Your task to perform on an android device: Open the calendar app, open the side menu, and click the "Day" option Image 0: 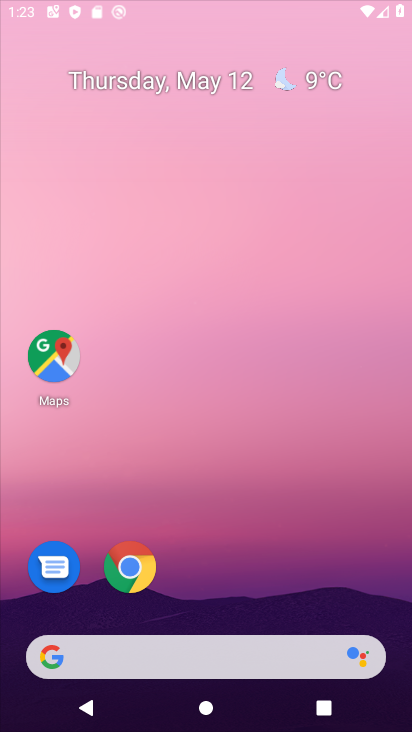
Step 0: drag from (228, 494) to (234, 1)
Your task to perform on an android device: Open the calendar app, open the side menu, and click the "Day" option Image 1: 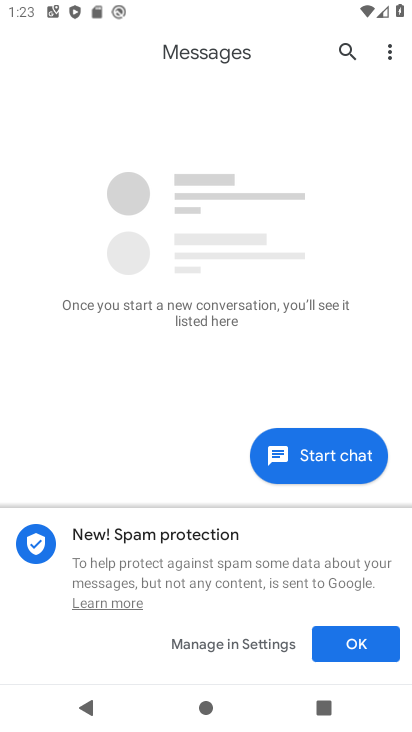
Step 1: press home button
Your task to perform on an android device: Open the calendar app, open the side menu, and click the "Day" option Image 2: 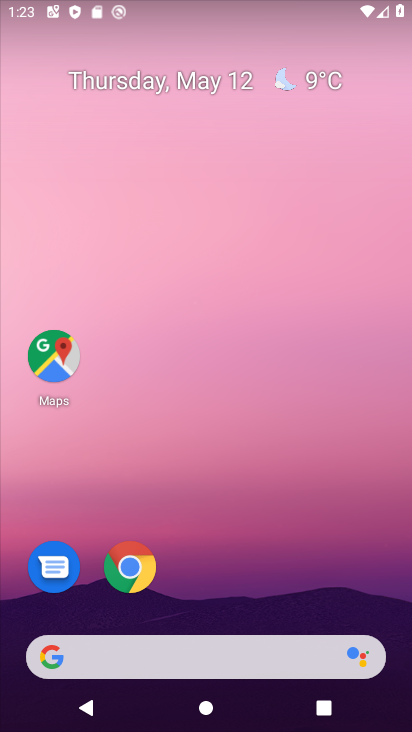
Step 2: drag from (241, 612) to (236, 92)
Your task to perform on an android device: Open the calendar app, open the side menu, and click the "Day" option Image 3: 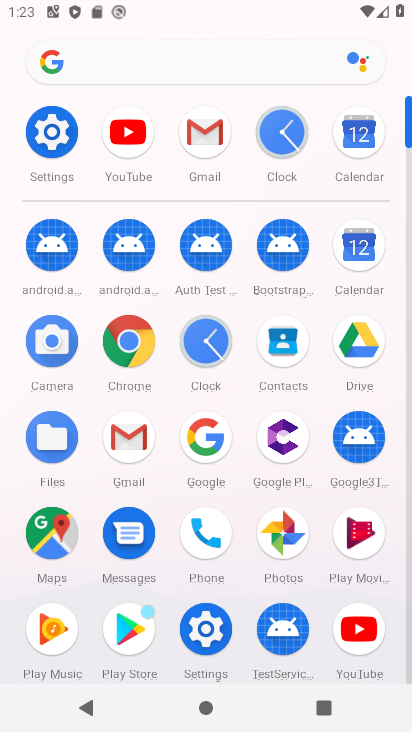
Step 3: click (358, 240)
Your task to perform on an android device: Open the calendar app, open the side menu, and click the "Day" option Image 4: 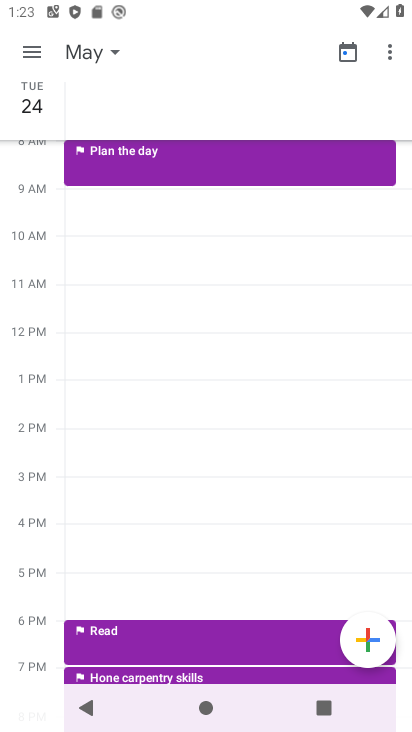
Step 4: click (32, 51)
Your task to perform on an android device: Open the calendar app, open the side menu, and click the "Day" option Image 5: 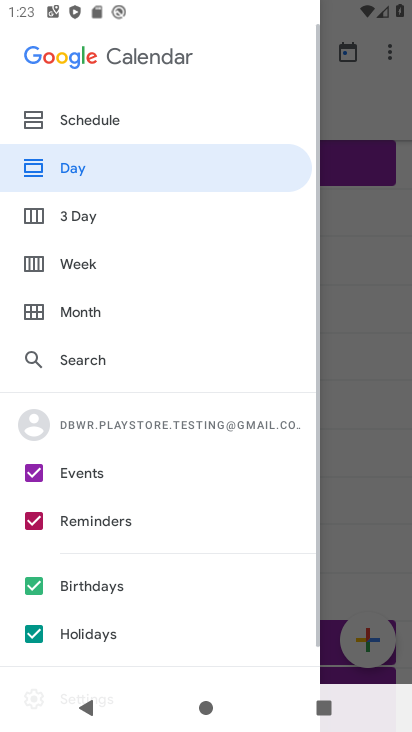
Step 5: click (73, 166)
Your task to perform on an android device: Open the calendar app, open the side menu, and click the "Day" option Image 6: 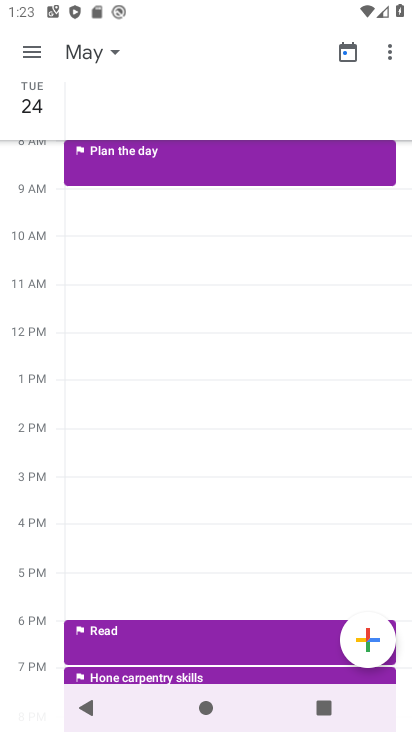
Step 6: task complete